Your task to perform on an android device: change timer sound Image 0: 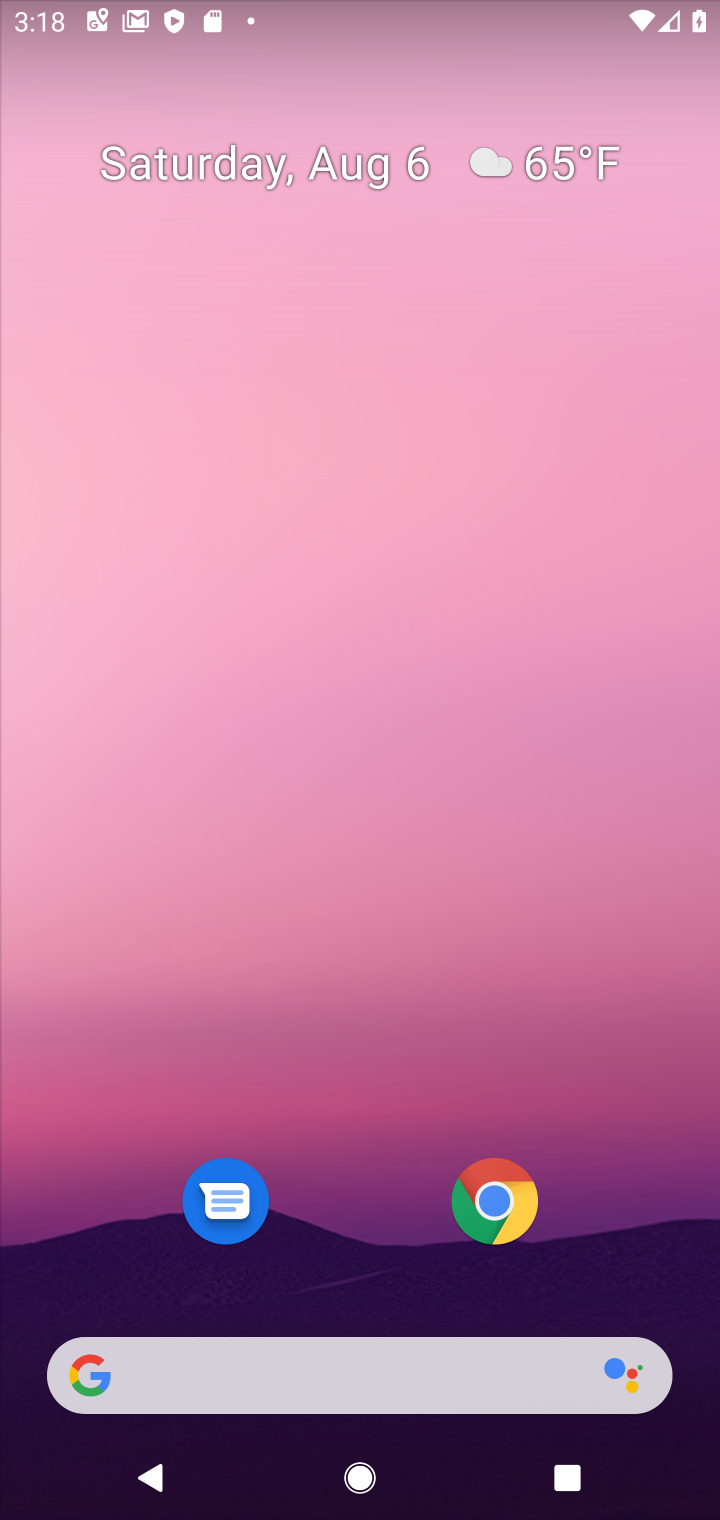
Step 0: drag from (294, 1091) to (327, 440)
Your task to perform on an android device: change timer sound Image 1: 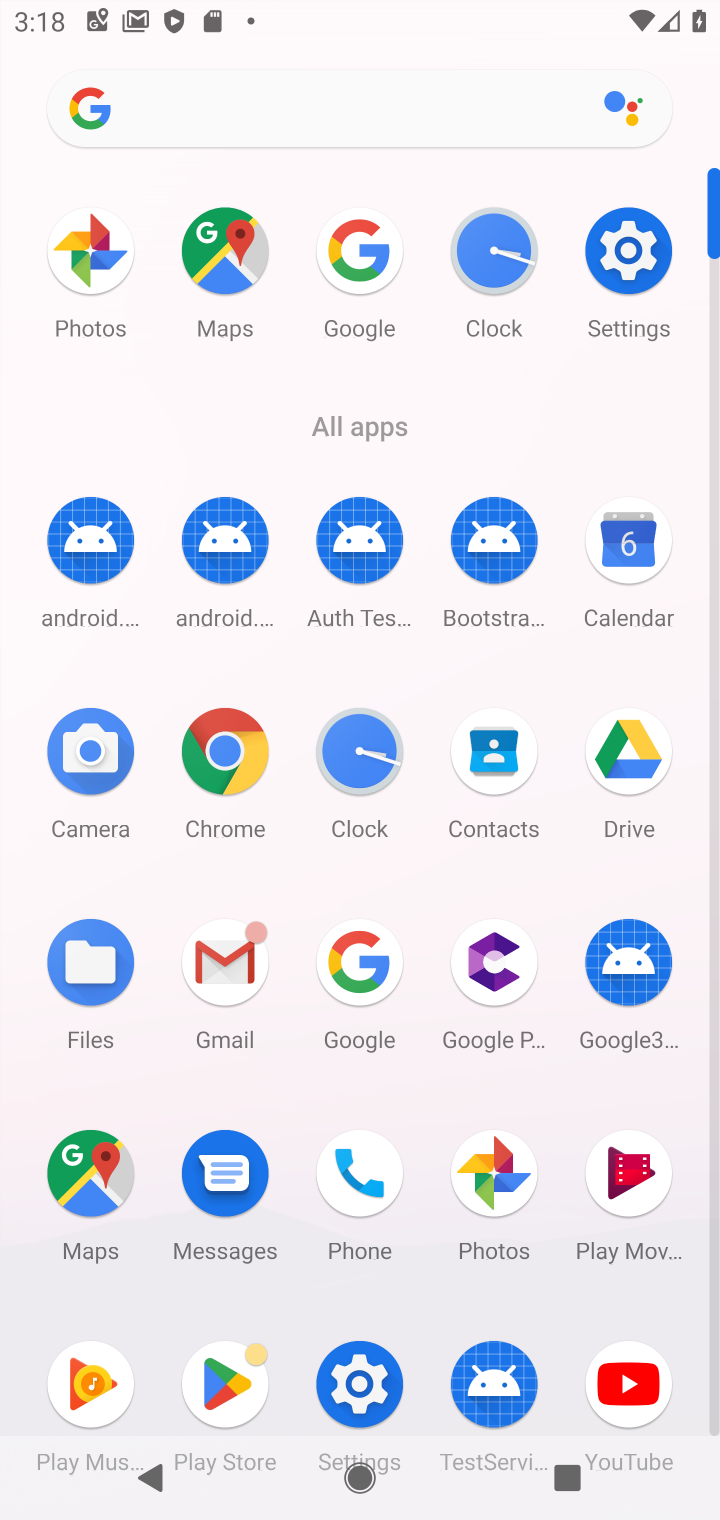
Step 1: click (475, 250)
Your task to perform on an android device: change timer sound Image 2: 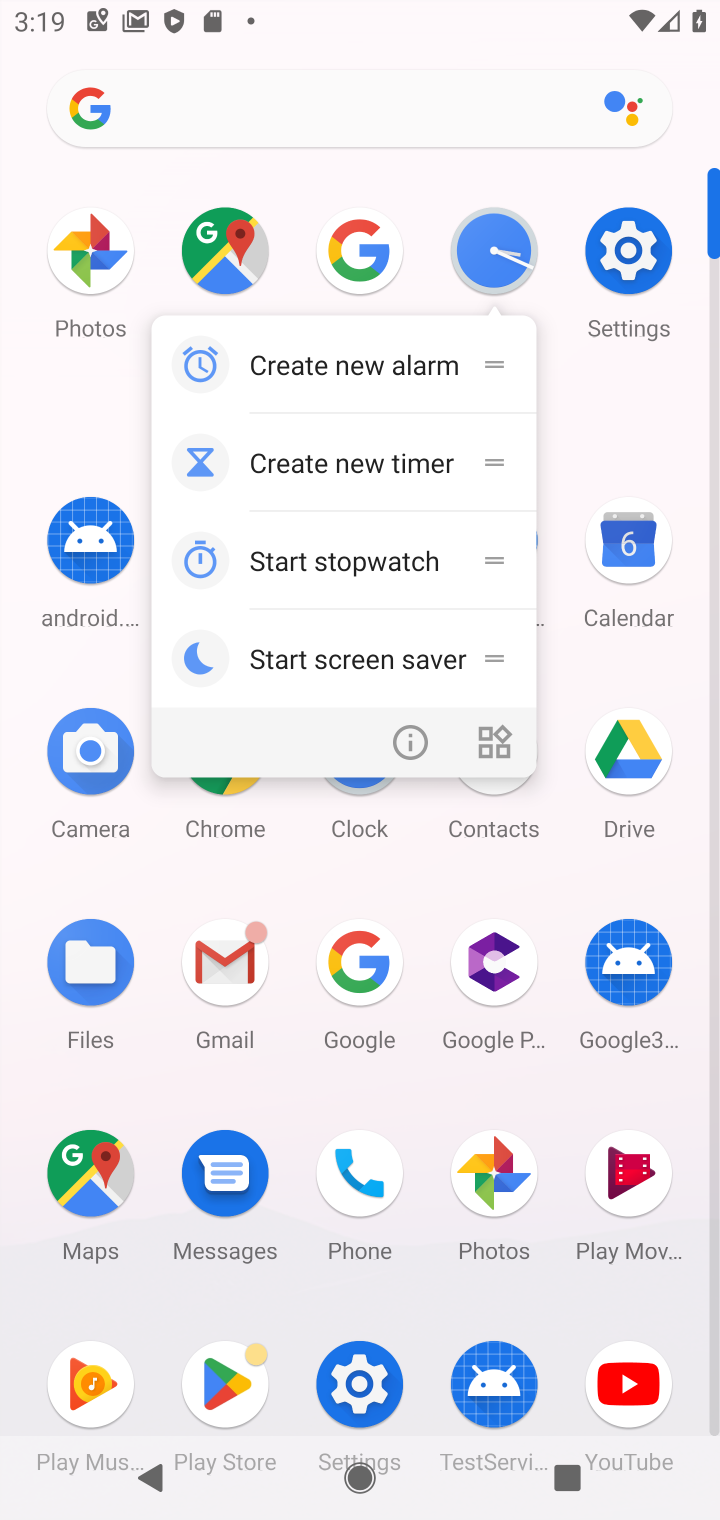
Step 2: click (510, 274)
Your task to perform on an android device: change timer sound Image 3: 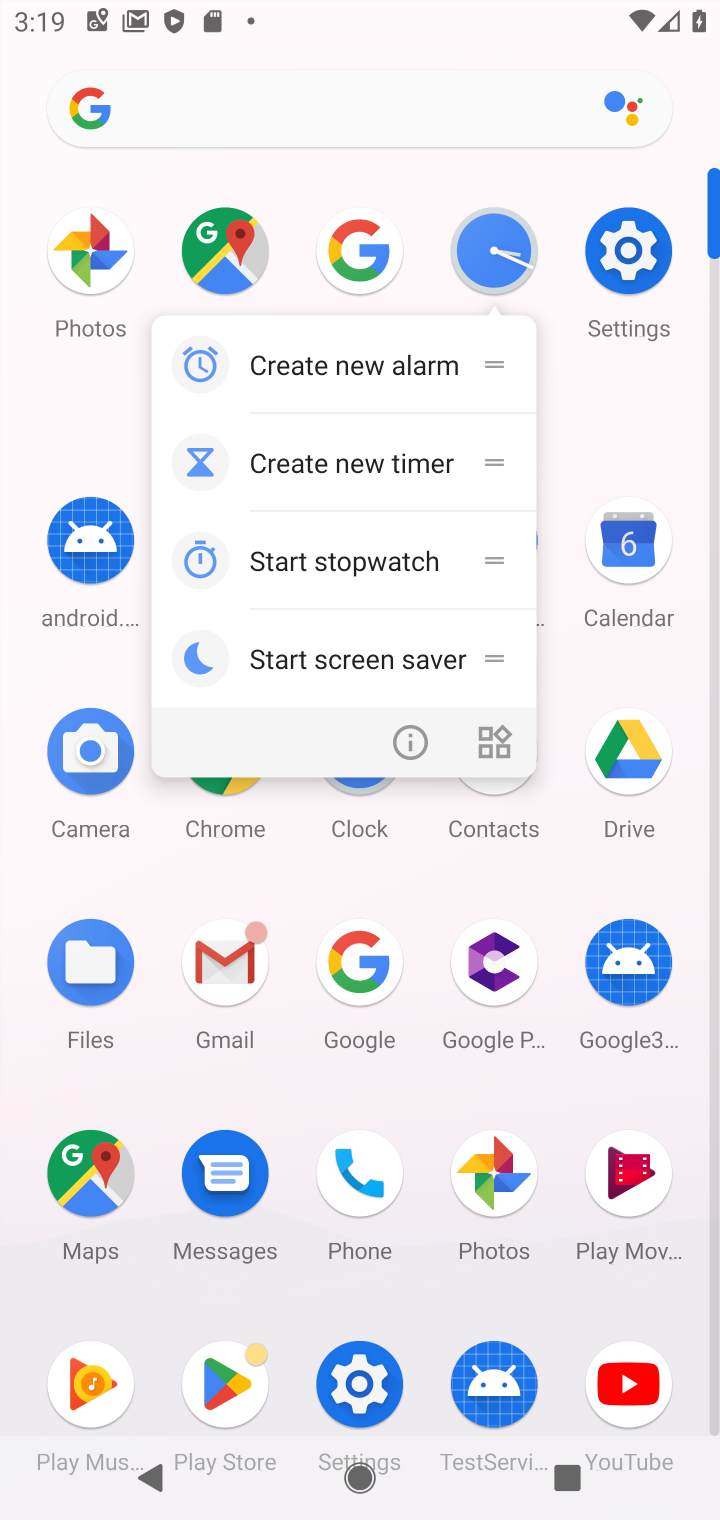
Step 3: click (510, 274)
Your task to perform on an android device: change timer sound Image 4: 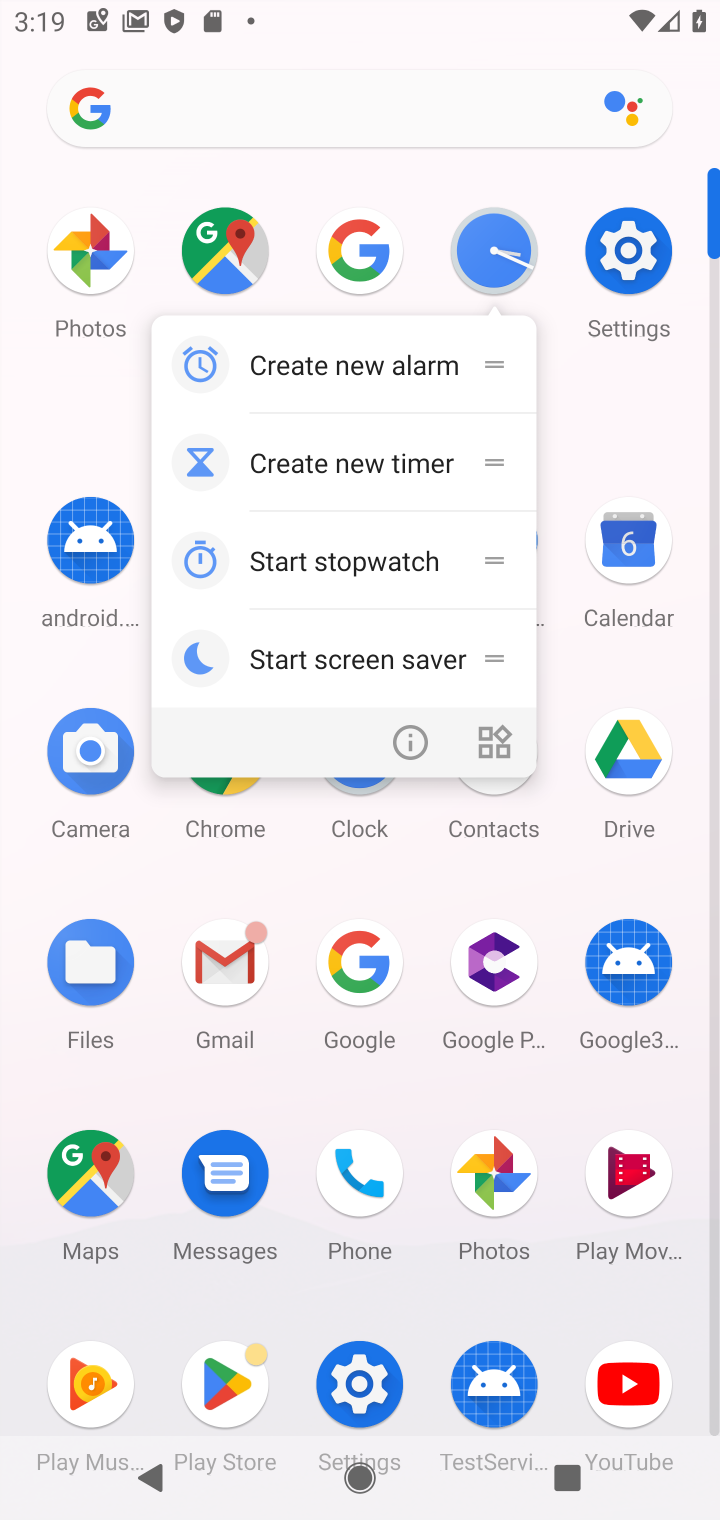
Step 4: click (510, 274)
Your task to perform on an android device: change timer sound Image 5: 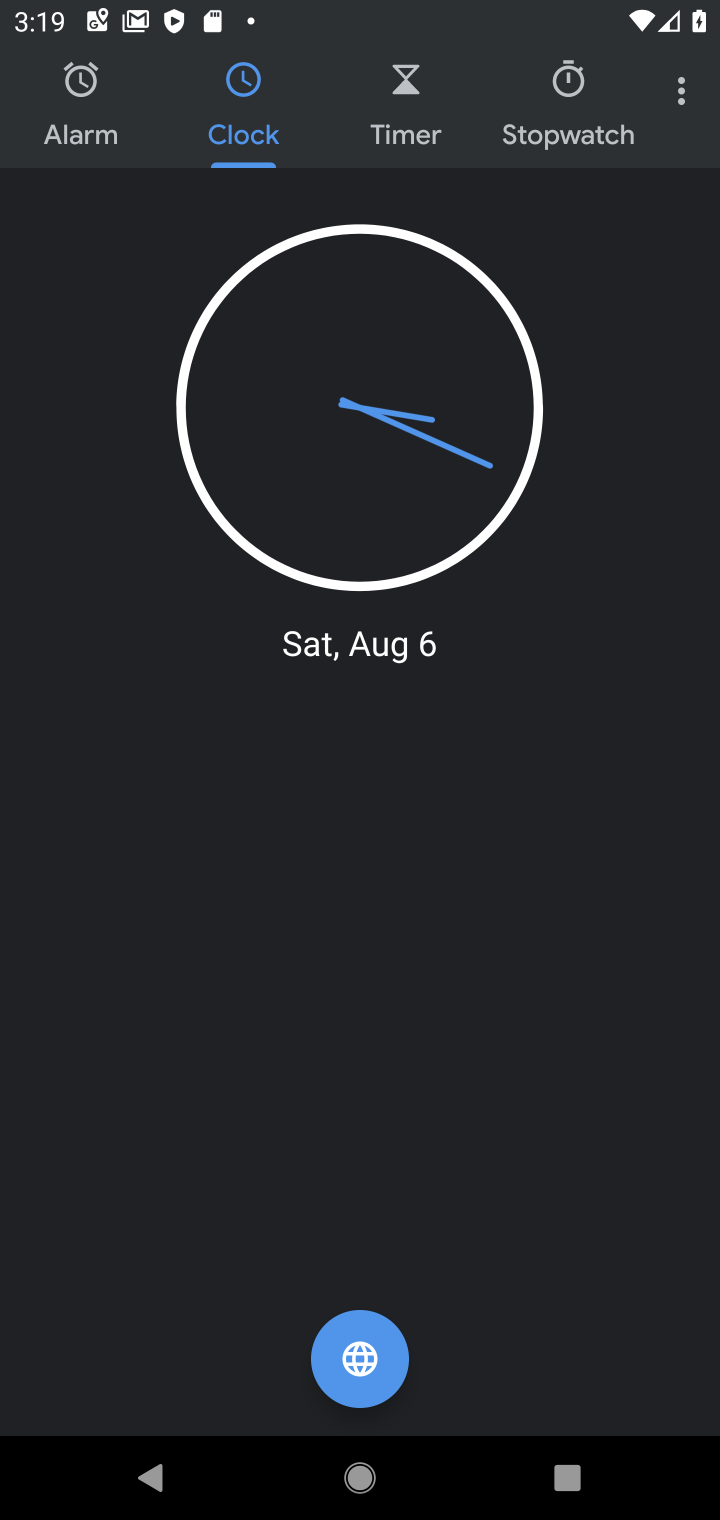
Step 5: click (661, 93)
Your task to perform on an android device: change timer sound Image 6: 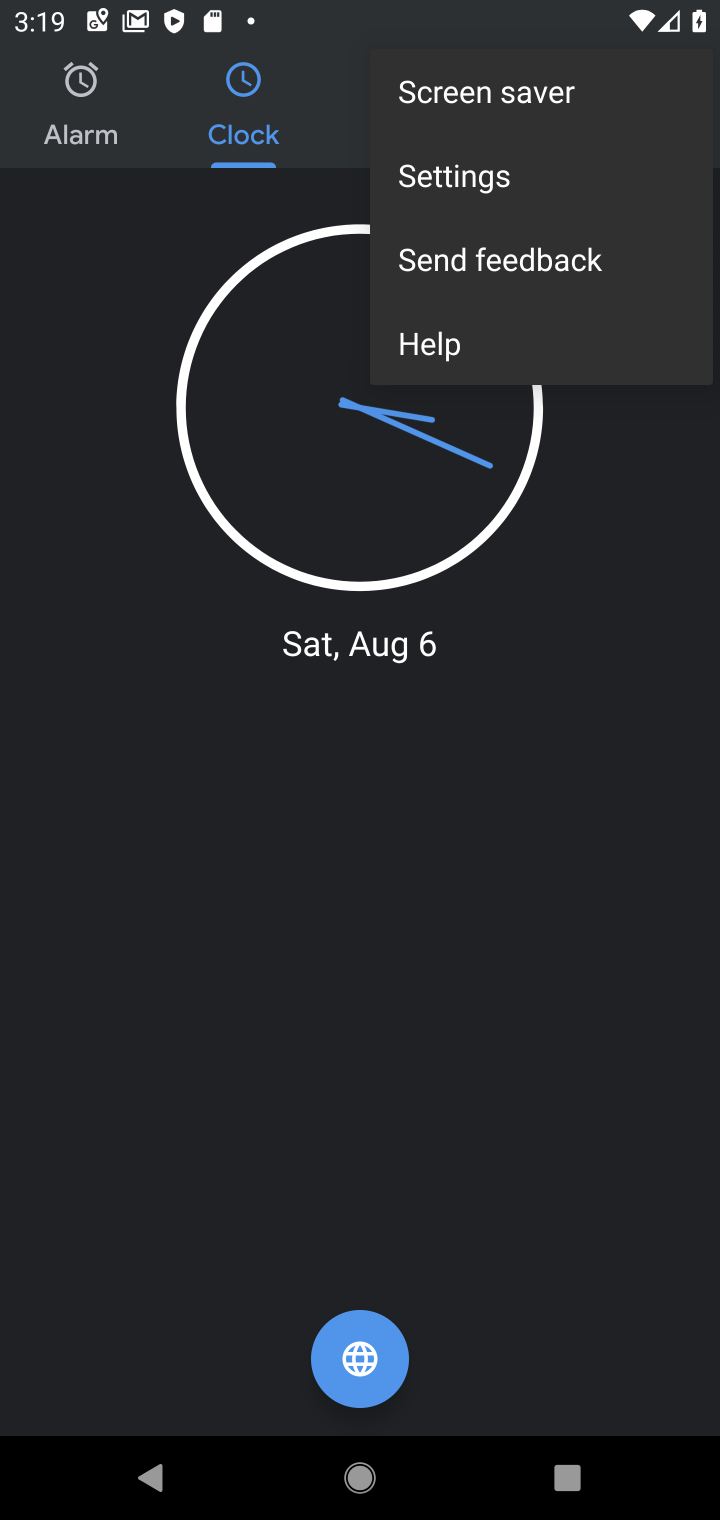
Step 6: click (514, 160)
Your task to perform on an android device: change timer sound Image 7: 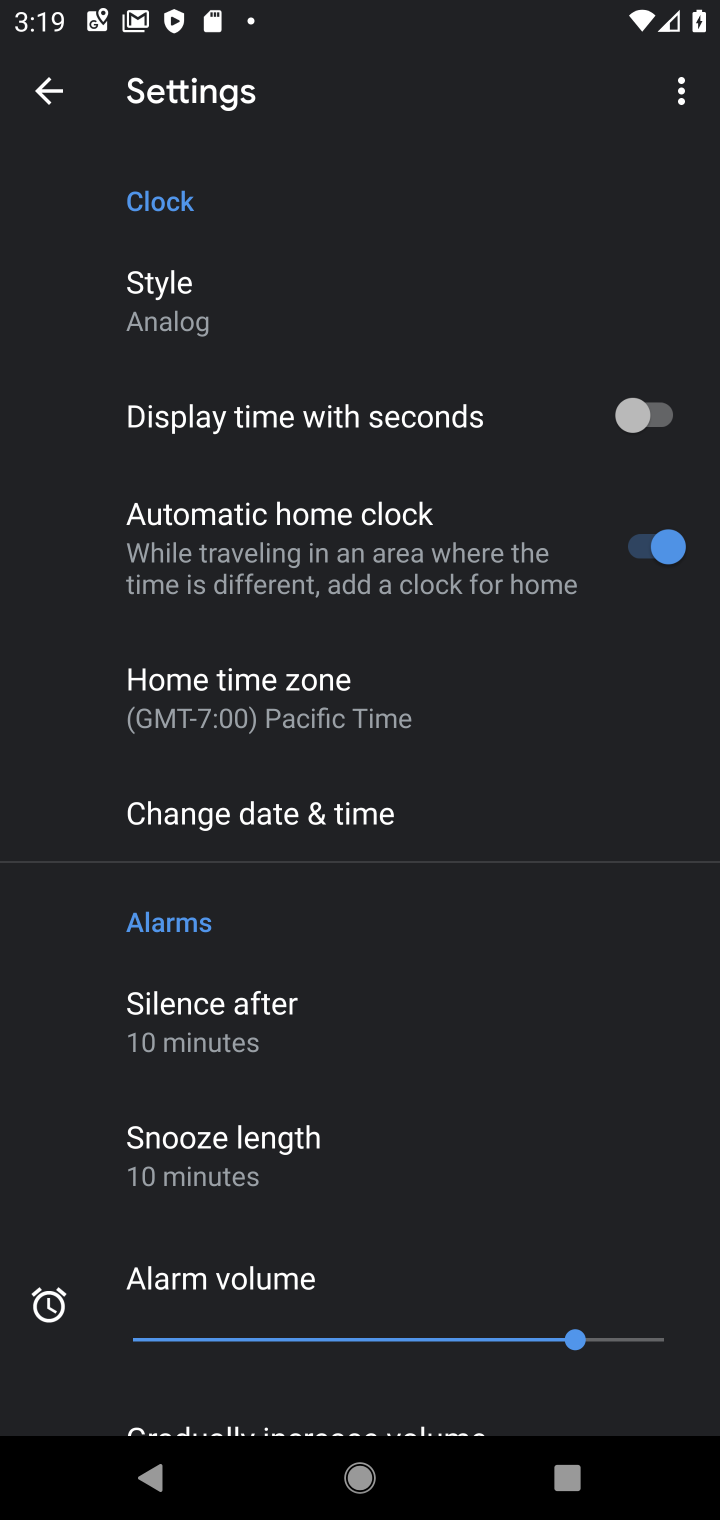
Step 7: drag from (212, 1194) to (407, 76)
Your task to perform on an android device: change timer sound Image 8: 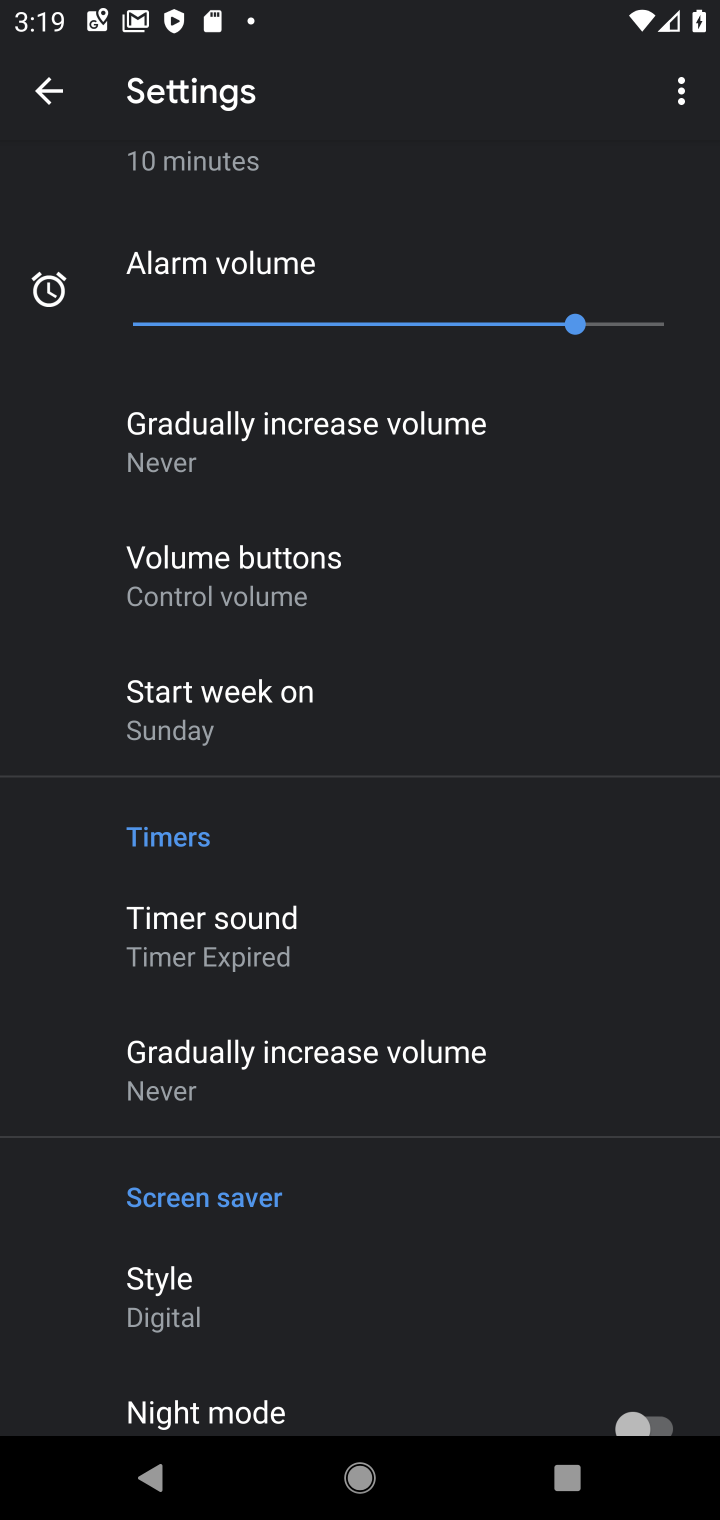
Step 8: click (258, 936)
Your task to perform on an android device: change timer sound Image 9: 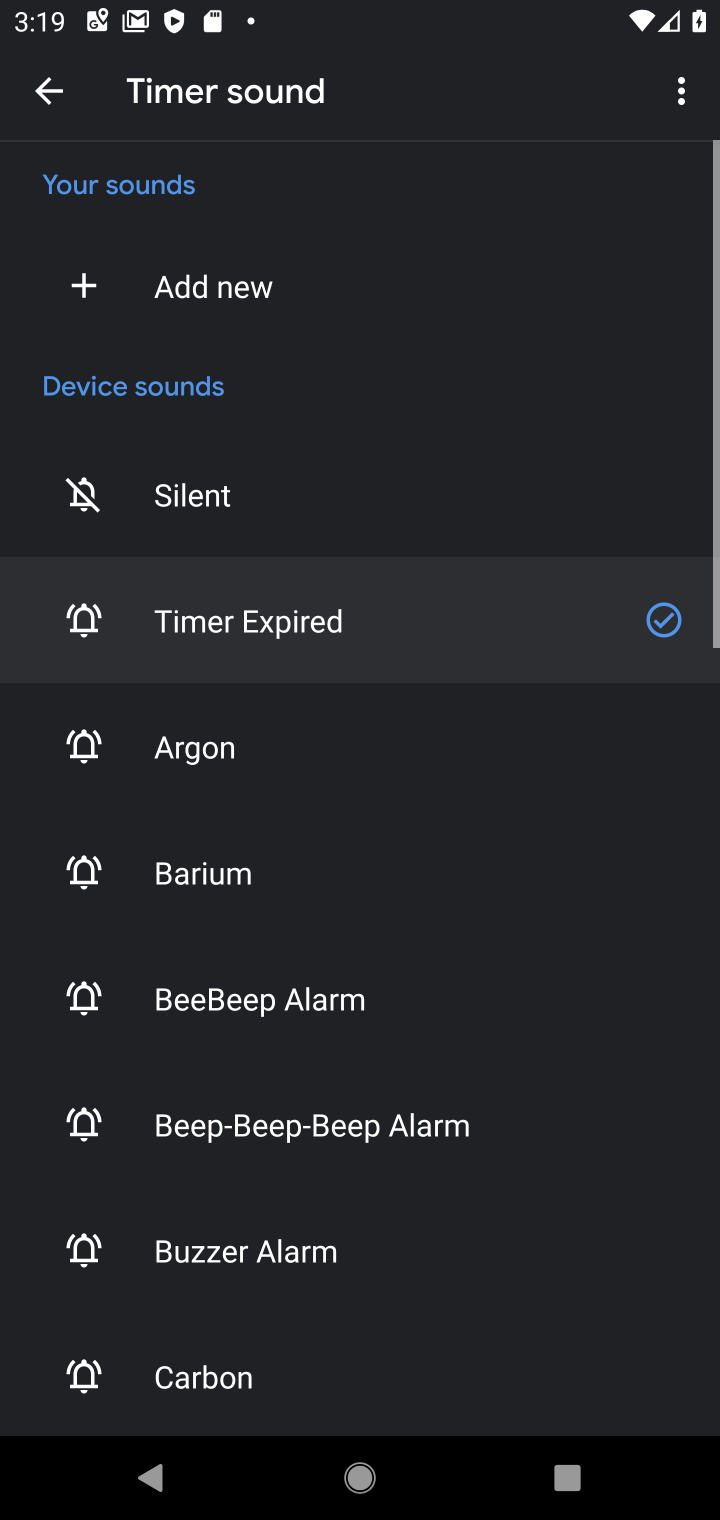
Step 9: click (207, 773)
Your task to perform on an android device: change timer sound Image 10: 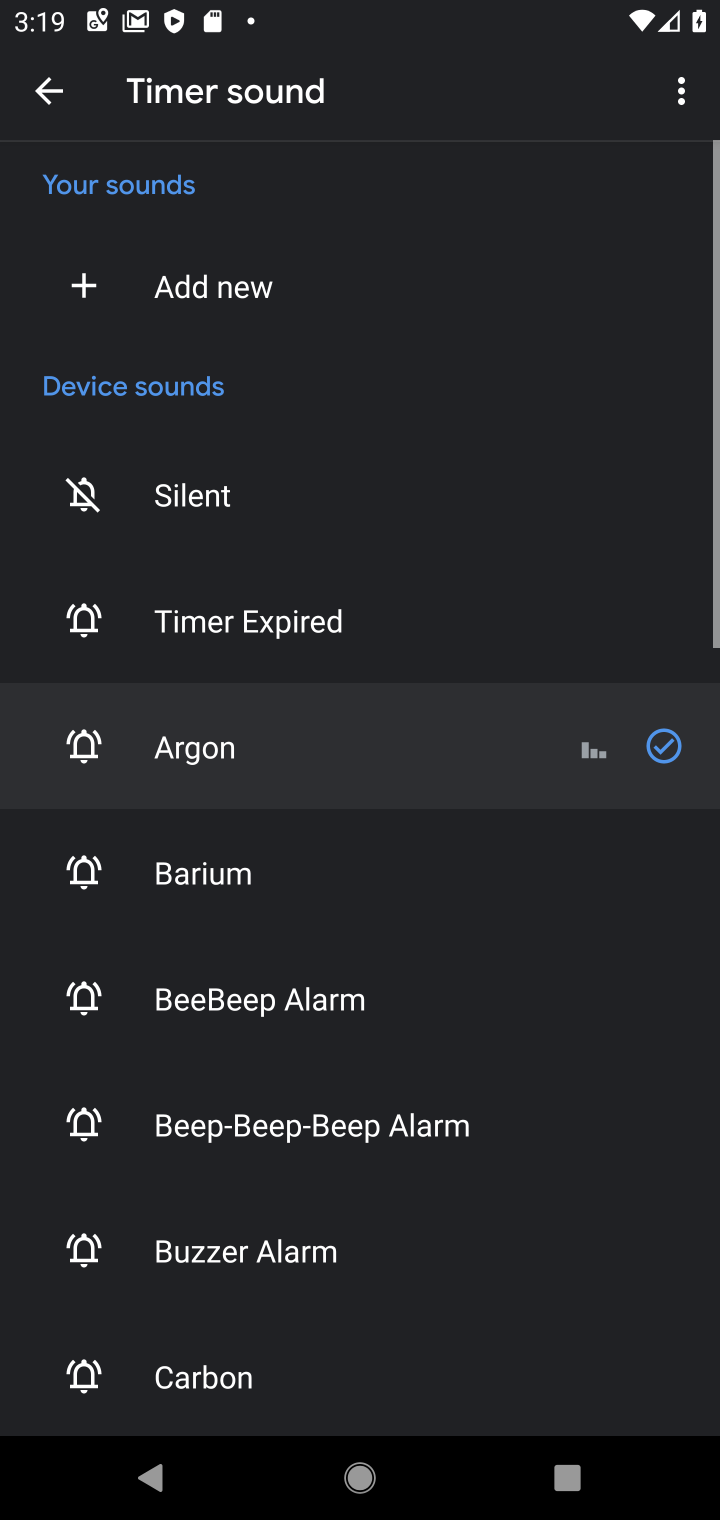
Step 10: task complete